Your task to perform on an android device: toggle notifications settings in the gmail app Image 0: 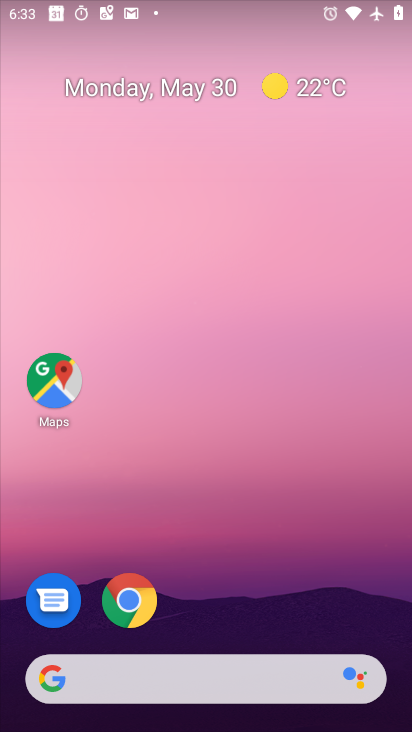
Step 0: press home button
Your task to perform on an android device: toggle notifications settings in the gmail app Image 1: 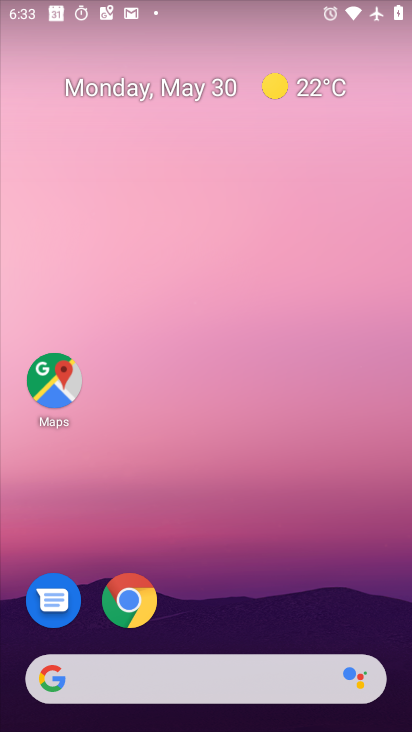
Step 1: drag from (259, 625) to (271, 133)
Your task to perform on an android device: toggle notifications settings in the gmail app Image 2: 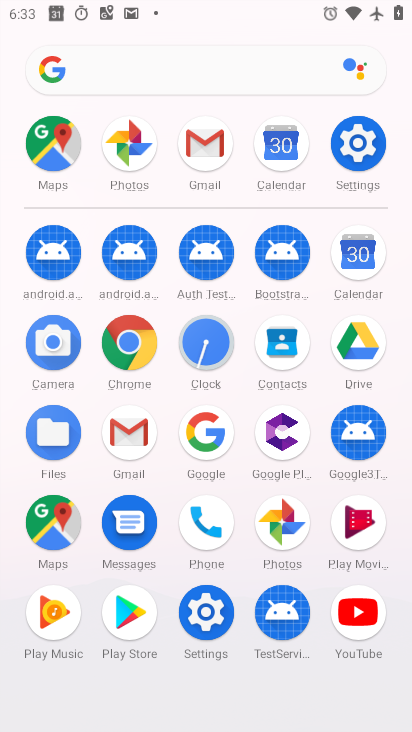
Step 2: click (210, 164)
Your task to perform on an android device: toggle notifications settings in the gmail app Image 3: 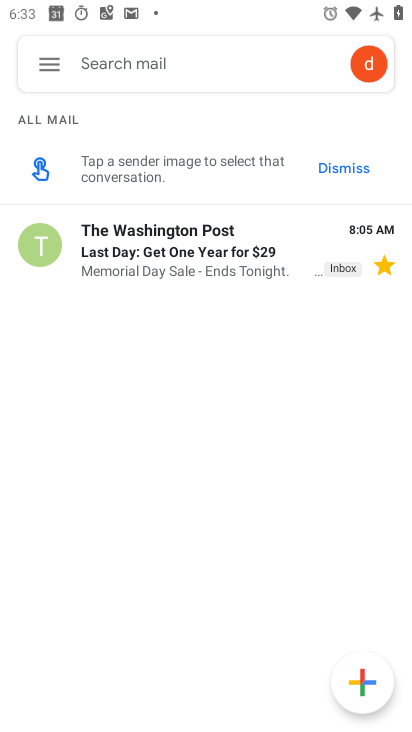
Step 3: click (51, 77)
Your task to perform on an android device: toggle notifications settings in the gmail app Image 4: 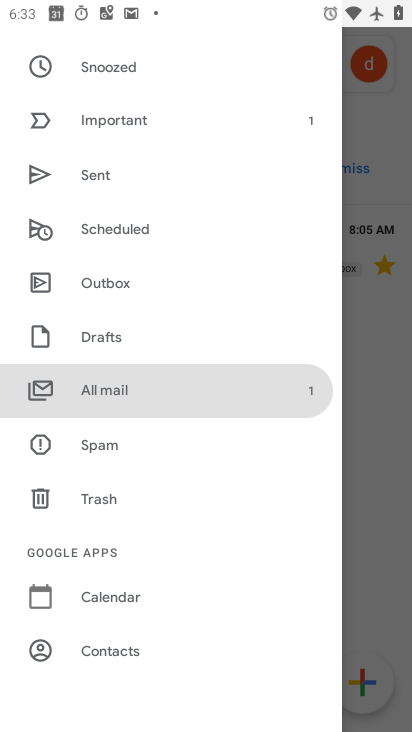
Step 4: drag from (254, 631) to (270, 249)
Your task to perform on an android device: toggle notifications settings in the gmail app Image 5: 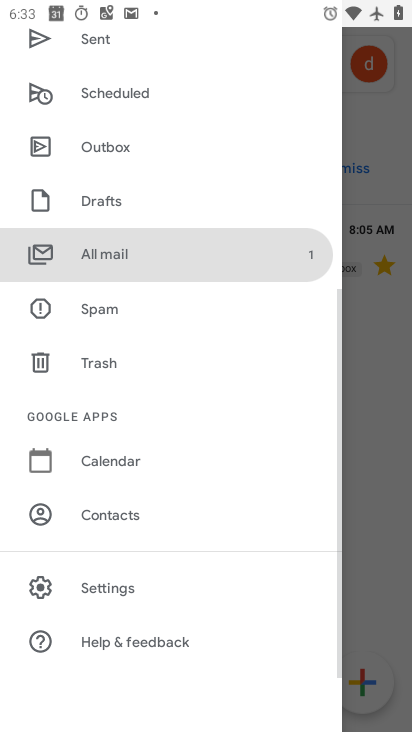
Step 5: click (102, 593)
Your task to perform on an android device: toggle notifications settings in the gmail app Image 6: 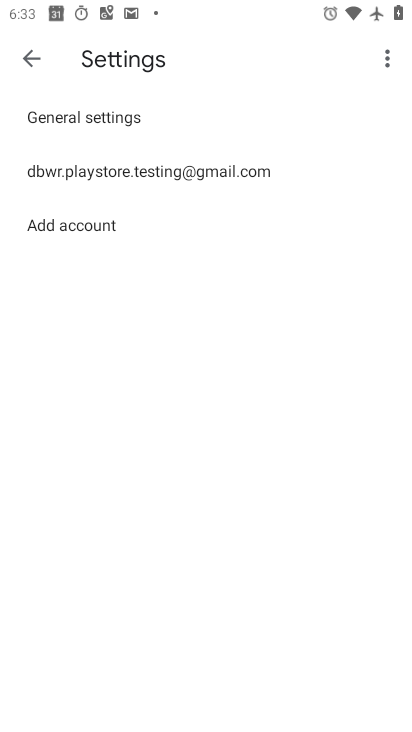
Step 6: click (65, 117)
Your task to perform on an android device: toggle notifications settings in the gmail app Image 7: 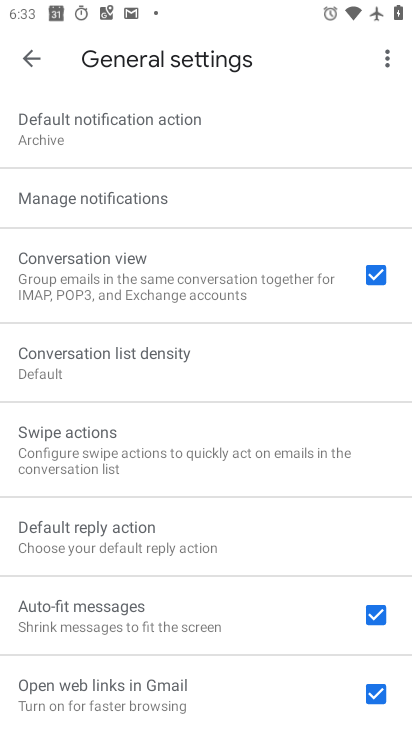
Step 7: click (99, 212)
Your task to perform on an android device: toggle notifications settings in the gmail app Image 8: 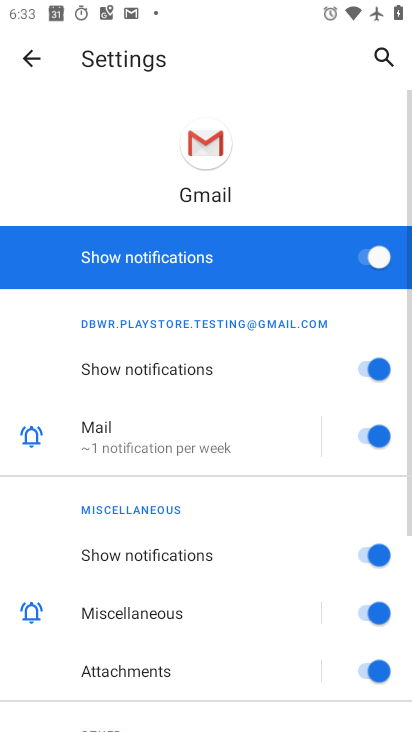
Step 8: click (370, 260)
Your task to perform on an android device: toggle notifications settings in the gmail app Image 9: 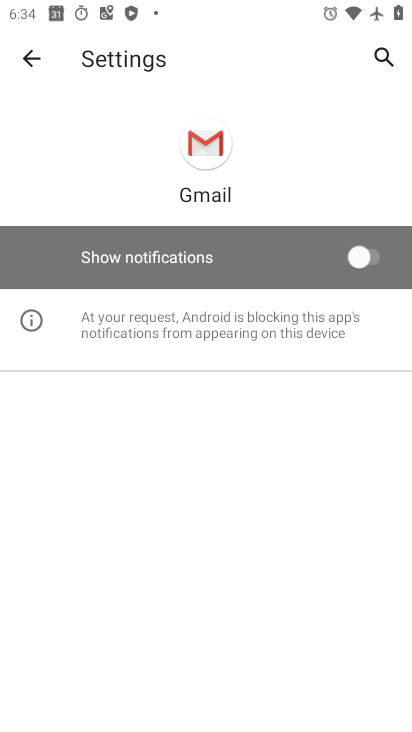
Step 9: task complete